Your task to perform on an android device: Open Yahoo.com Image 0: 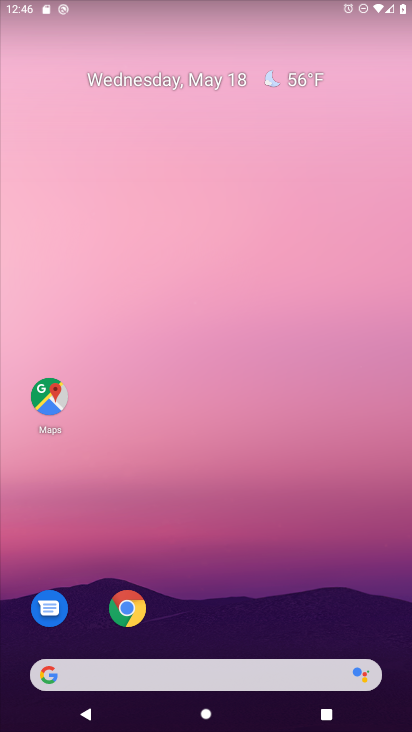
Step 0: drag from (284, 684) to (220, 187)
Your task to perform on an android device: Open Yahoo.com Image 1: 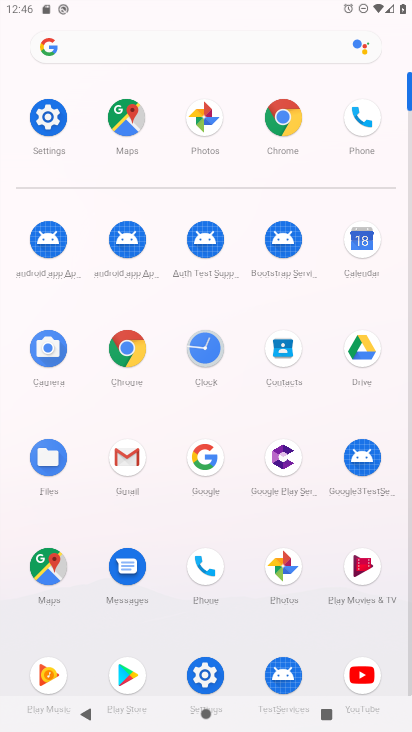
Step 1: click (281, 125)
Your task to perform on an android device: Open Yahoo.com Image 2: 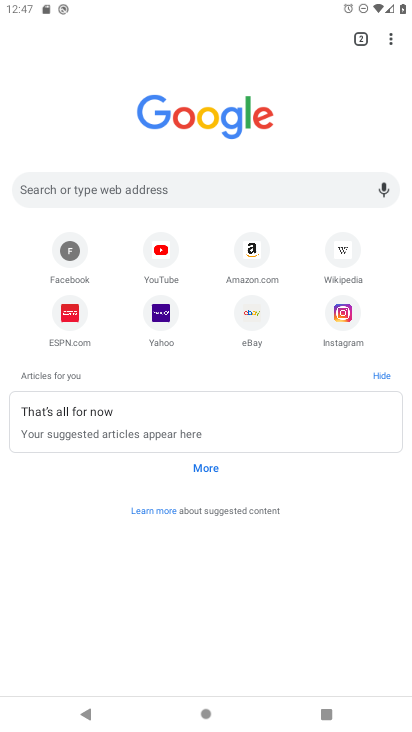
Step 2: click (169, 309)
Your task to perform on an android device: Open Yahoo.com Image 3: 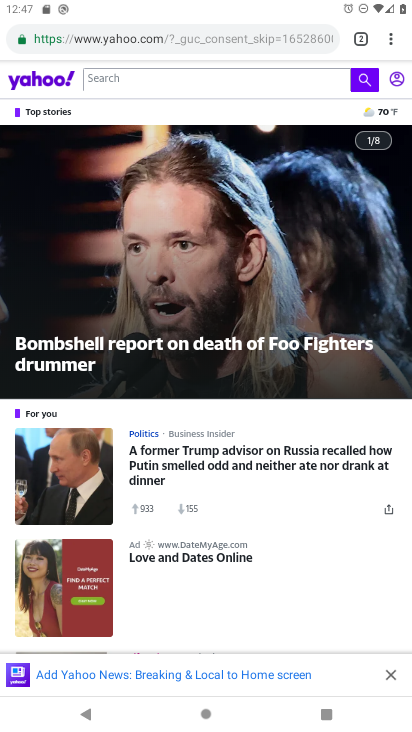
Step 3: task complete